Your task to perform on an android device: change the clock display to digital Image 0: 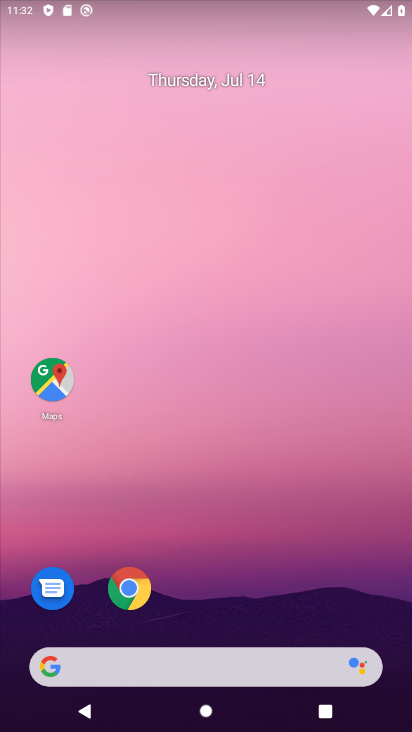
Step 0: drag from (223, 542) to (204, 3)
Your task to perform on an android device: change the clock display to digital Image 1: 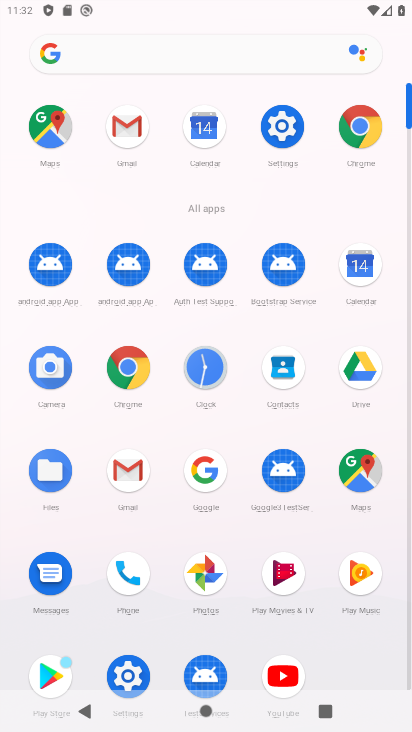
Step 1: click (196, 371)
Your task to perform on an android device: change the clock display to digital Image 2: 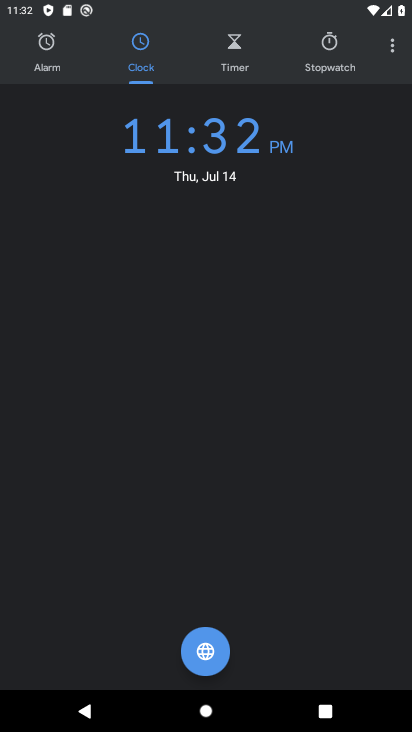
Step 2: click (388, 53)
Your task to perform on an android device: change the clock display to digital Image 3: 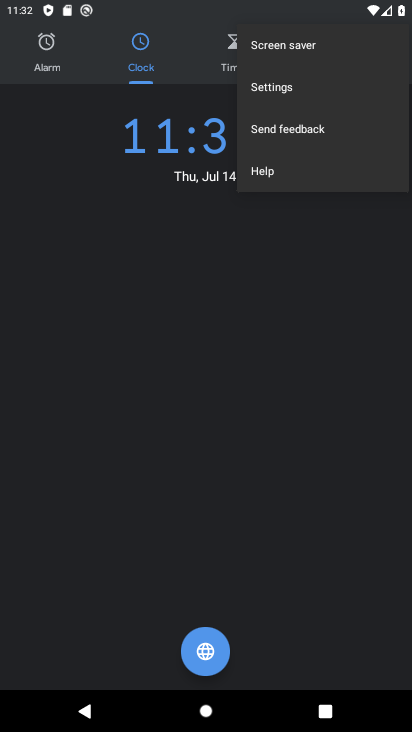
Step 3: click (267, 94)
Your task to perform on an android device: change the clock display to digital Image 4: 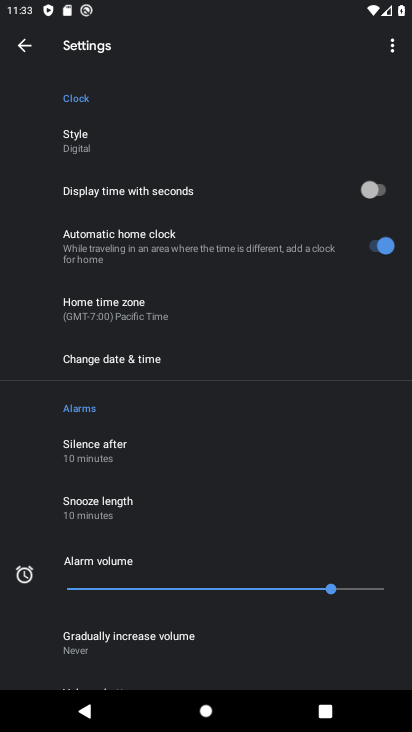
Step 4: click (89, 151)
Your task to perform on an android device: change the clock display to digital Image 5: 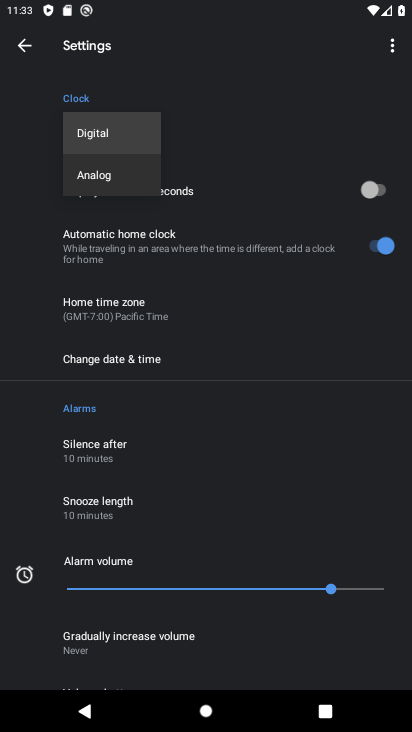
Step 5: task complete